Your task to perform on an android device: Open network settings Image 0: 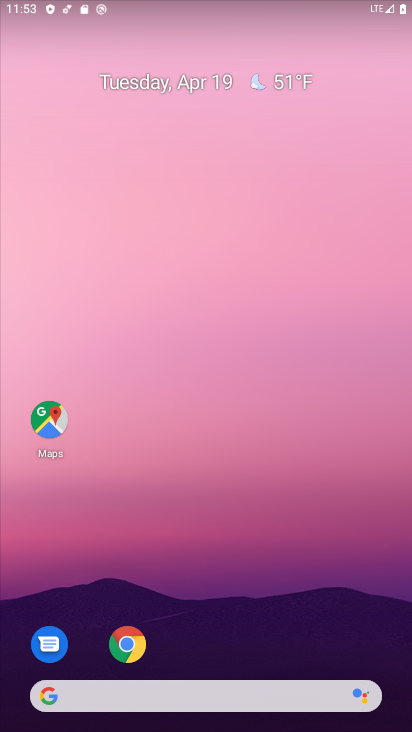
Step 0: drag from (209, 724) to (211, 95)
Your task to perform on an android device: Open network settings Image 1: 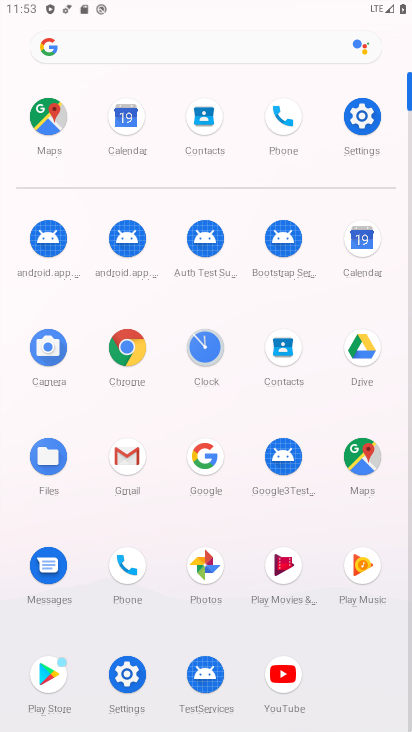
Step 1: click (363, 116)
Your task to perform on an android device: Open network settings Image 2: 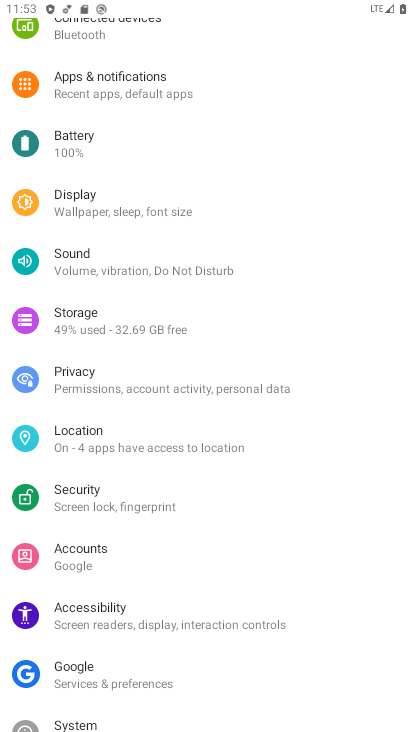
Step 2: drag from (166, 96) to (172, 425)
Your task to perform on an android device: Open network settings Image 3: 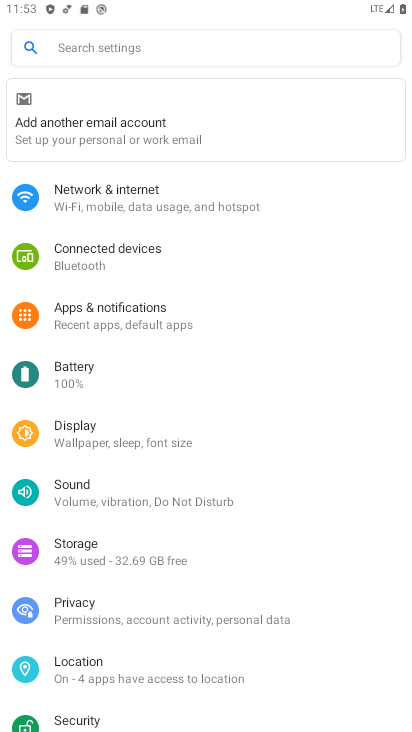
Step 3: click (85, 204)
Your task to perform on an android device: Open network settings Image 4: 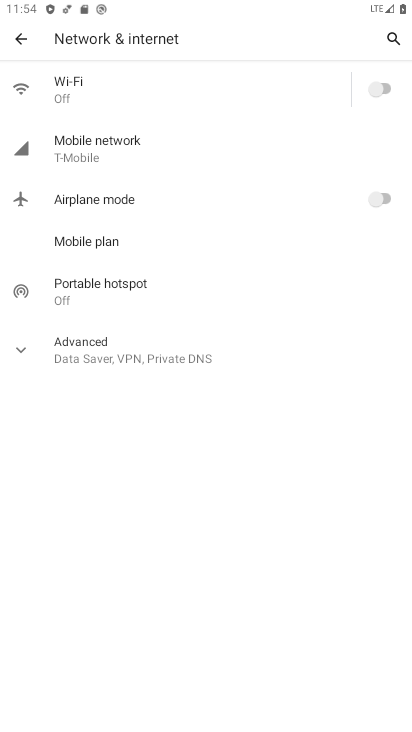
Step 4: task complete